Your task to perform on an android device: add a contact in the contacts app Image 0: 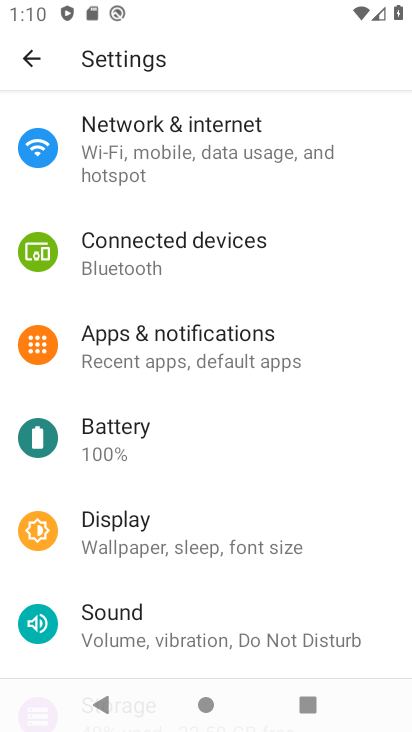
Step 0: press home button
Your task to perform on an android device: add a contact in the contacts app Image 1: 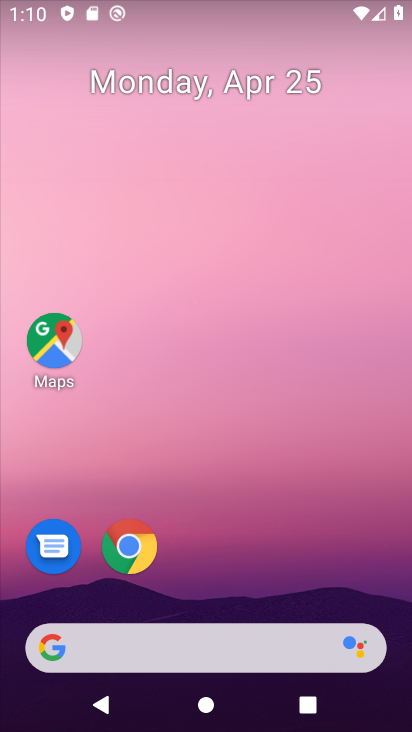
Step 1: drag from (187, 614) to (187, 41)
Your task to perform on an android device: add a contact in the contacts app Image 2: 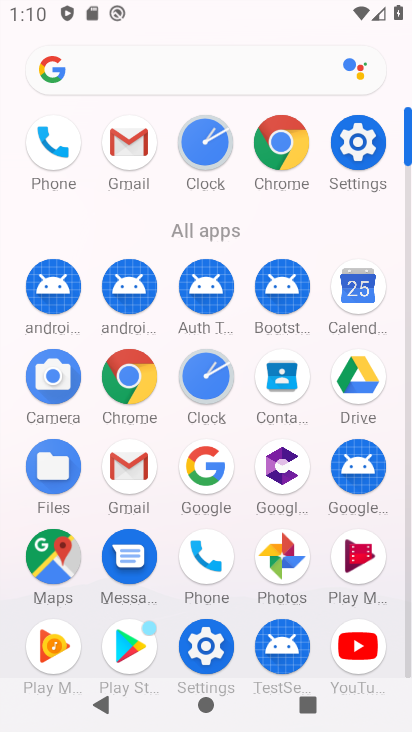
Step 2: click (192, 554)
Your task to perform on an android device: add a contact in the contacts app Image 3: 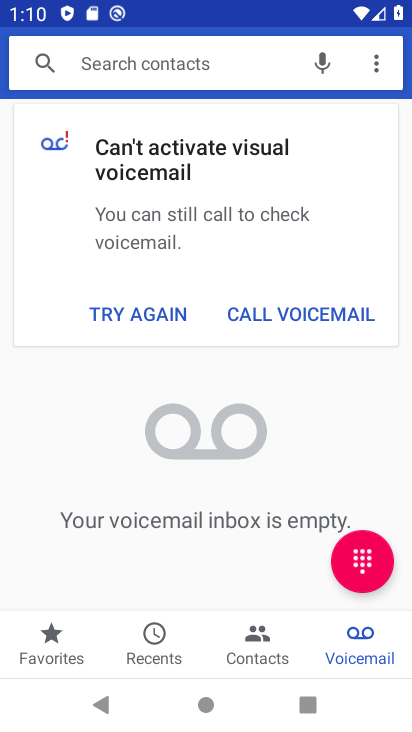
Step 3: click (263, 628)
Your task to perform on an android device: add a contact in the contacts app Image 4: 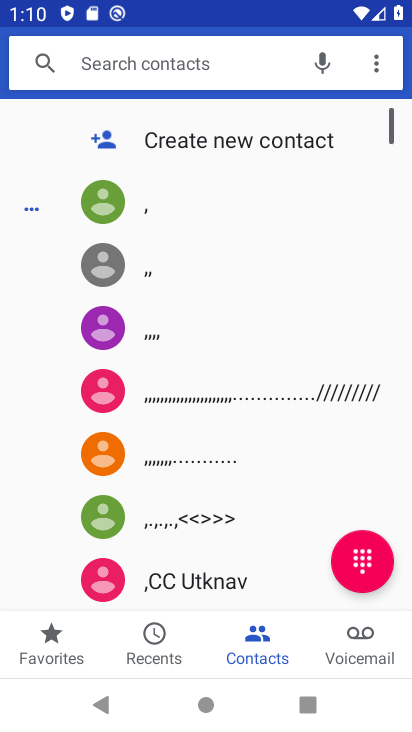
Step 4: click (234, 143)
Your task to perform on an android device: add a contact in the contacts app Image 5: 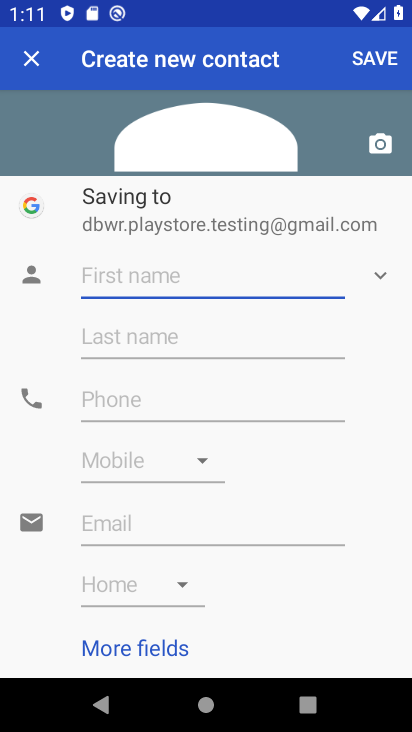
Step 5: type "bc"
Your task to perform on an android device: add a contact in the contacts app Image 6: 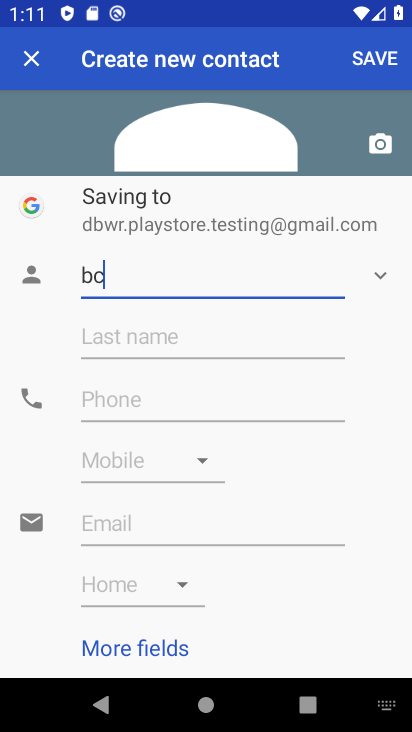
Step 6: type ""
Your task to perform on an android device: add a contact in the contacts app Image 7: 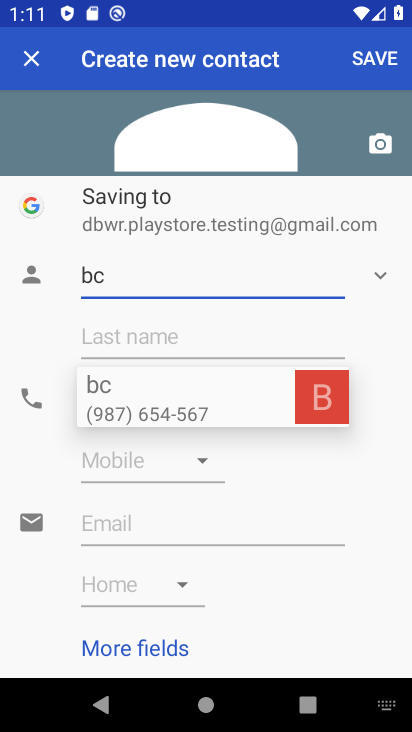
Step 7: click (165, 389)
Your task to perform on an android device: add a contact in the contacts app Image 8: 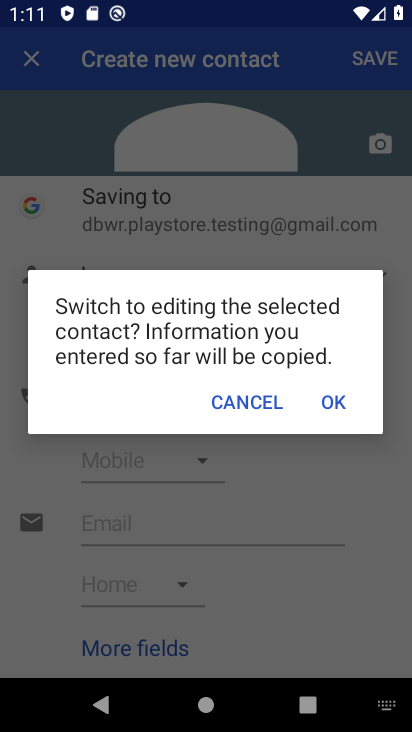
Step 8: click (333, 396)
Your task to perform on an android device: add a contact in the contacts app Image 9: 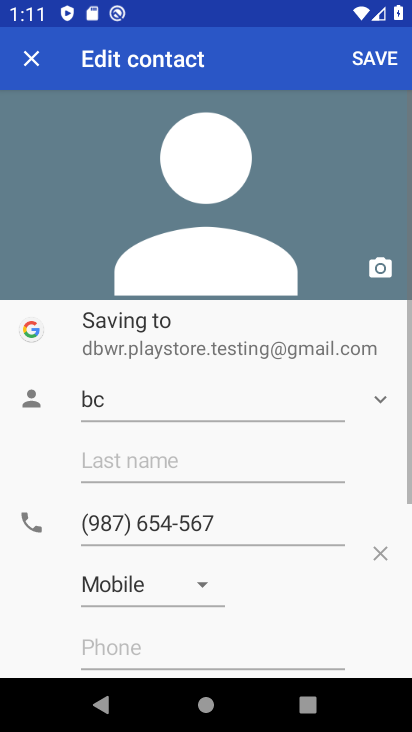
Step 9: task complete